Your task to perform on an android device: set an alarm Image 0: 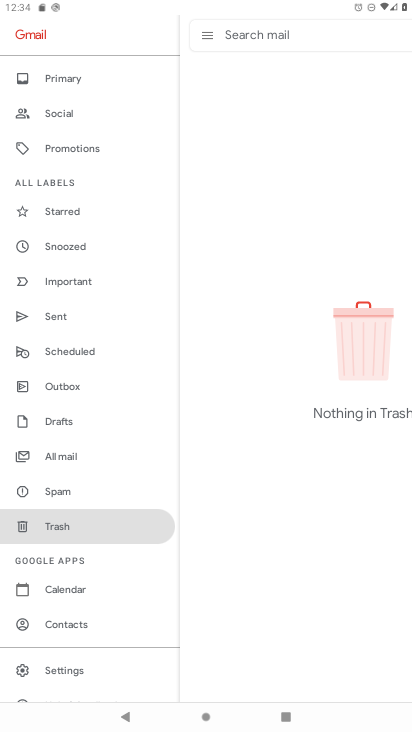
Step 0: press home button
Your task to perform on an android device: set an alarm Image 1: 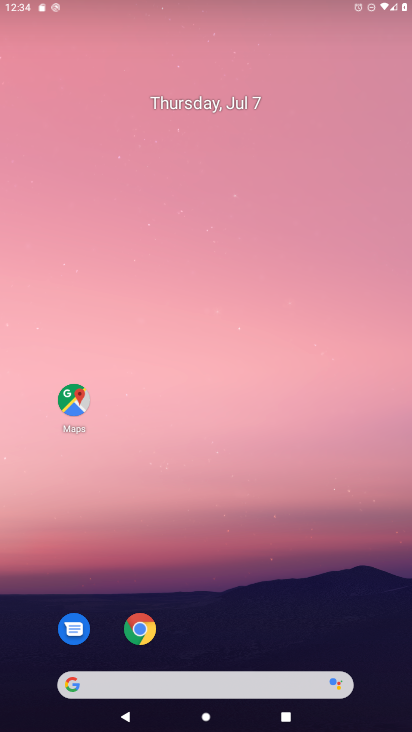
Step 1: drag from (208, 601) to (208, 91)
Your task to perform on an android device: set an alarm Image 2: 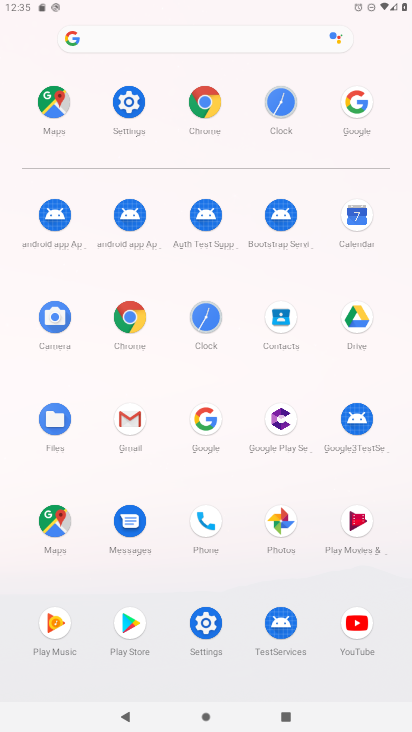
Step 2: click (281, 104)
Your task to perform on an android device: set an alarm Image 3: 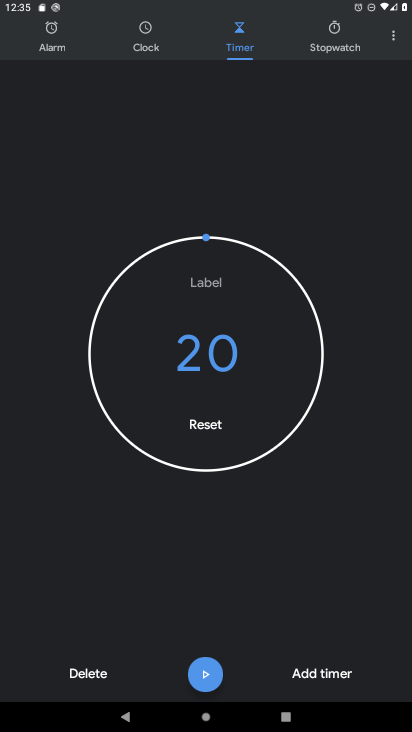
Step 3: click (56, 45)
Your task to perform on an android device: set an alarm Image 4: 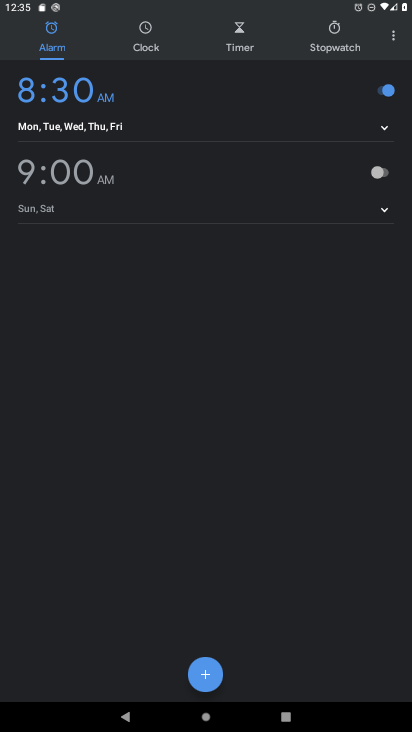
Step 4: click (380, 173)
Your task to perform on an android device: set an alarm Image 5: 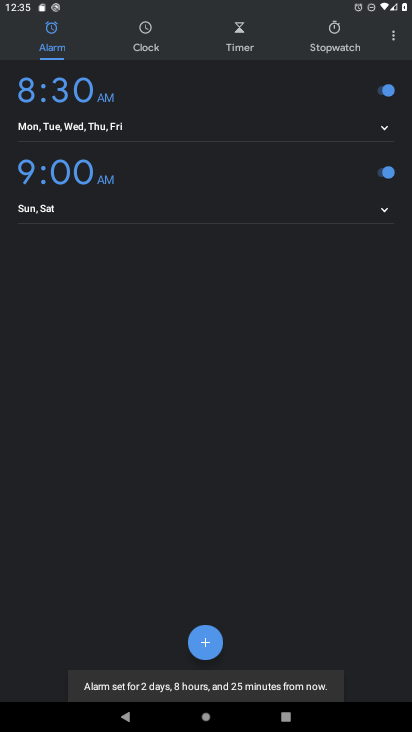
Step 5: task complete